Your task to perform on an android device: Open Google Image 0: 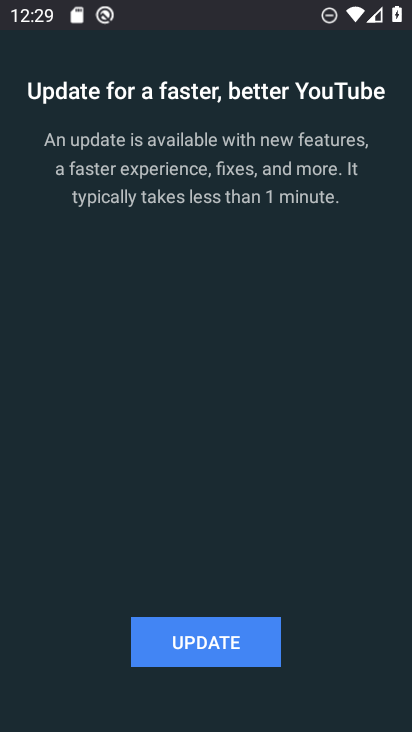
Step 0: press home button
Your task to perform on an android device: Open Google Image 1: 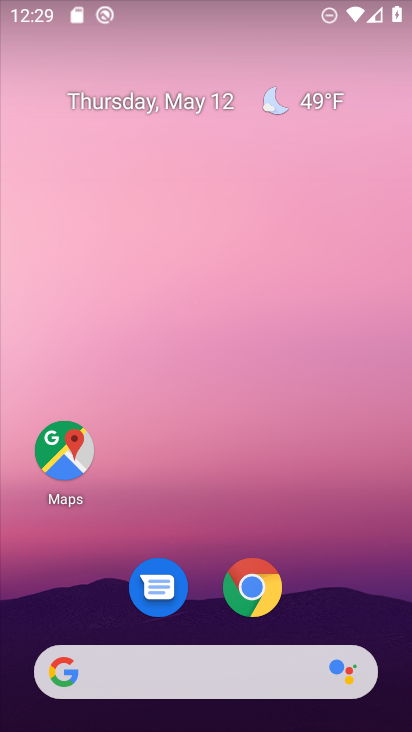
Step 1: drag from (320, 583) to (337, 299)
Your task to perform on an android device: Open Google Image 2: 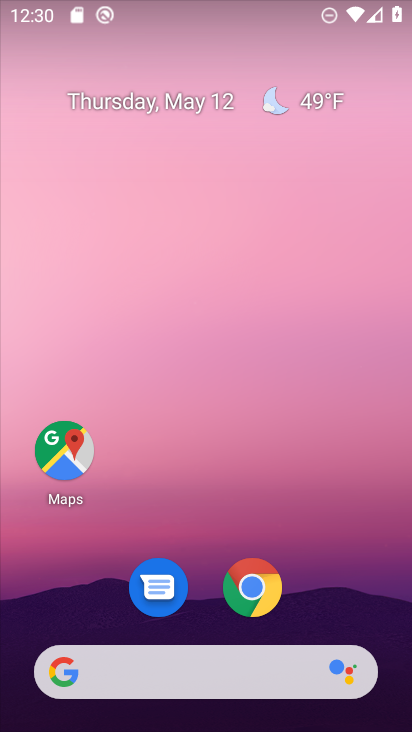
Step 2: drag from (302, 508) to (325, 359)
Your task to perform on an android device: Open Google Image 3: 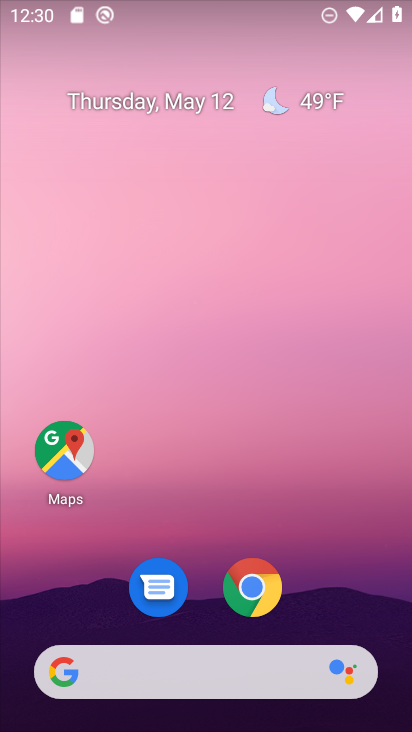
Step 3: drag from (174, 586) to (247, 258)
Your task to perform on an android device: Open Google Image 4: 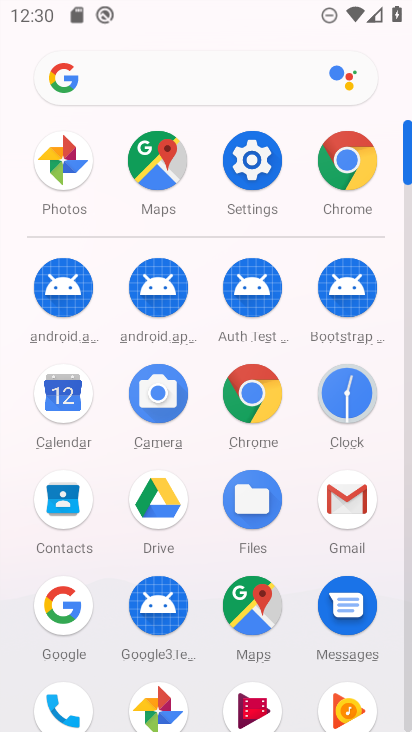
Step 4: click (71, 601)
Your task to perform on an android device: Open Google Image 5: 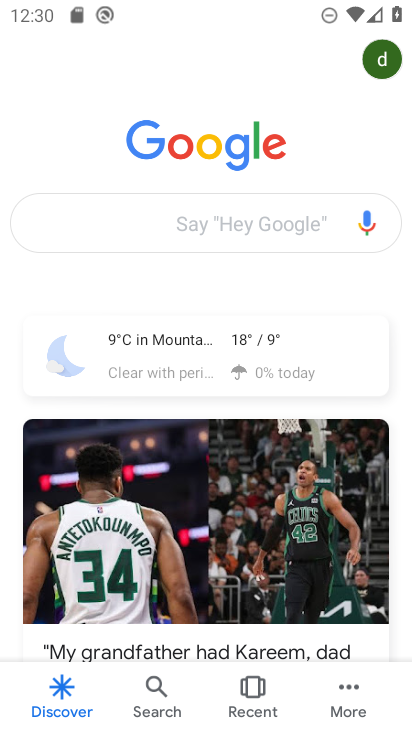
Step 5: task complete